Your task to perform on an android device: Go to Amazon Image 0: 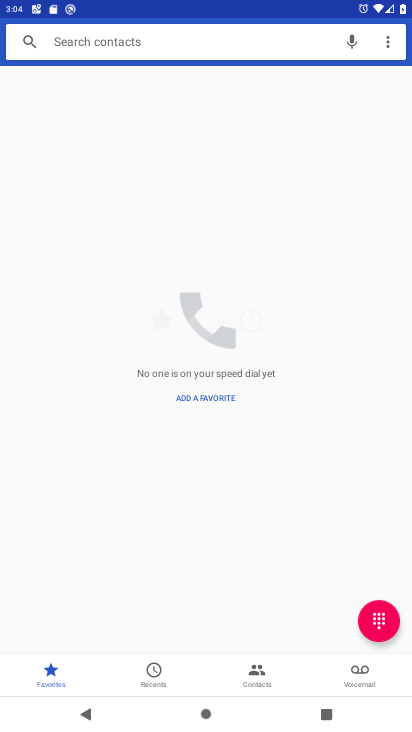
Step 0: press home button
Your task to perform on an android device: Go to Amazon Image 1: 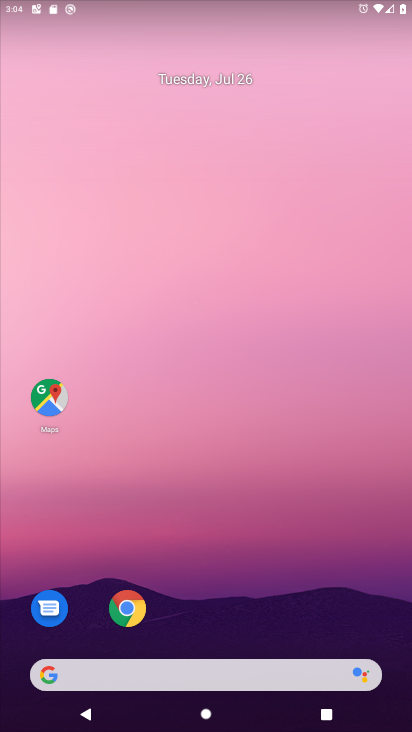
Step 1: click (123, 610)
Your task to perform on an android device: Go to Amazon Image 2: 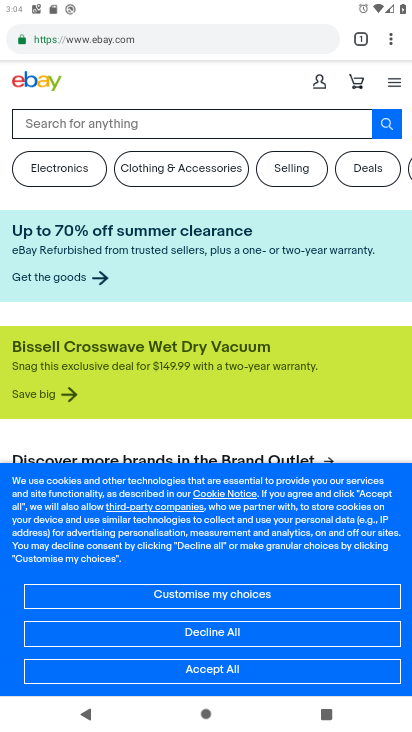
Step 2: click (145, 37)
Your task to perform on an android device: Go to Amazon Image 3: 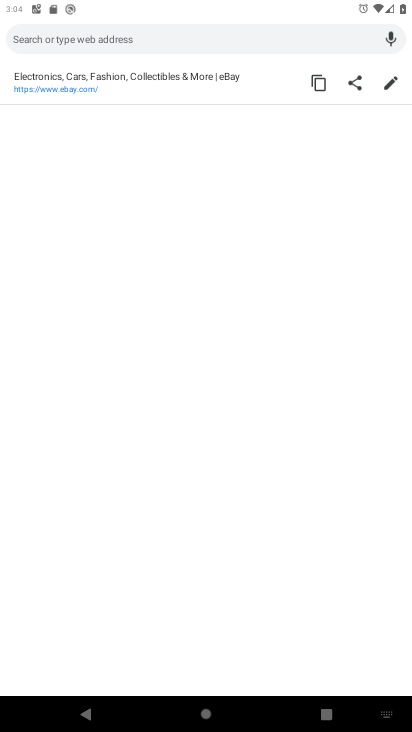
Step 3: type "amazon"
Your task to perform on an android device: Go to Amazon Image 4: 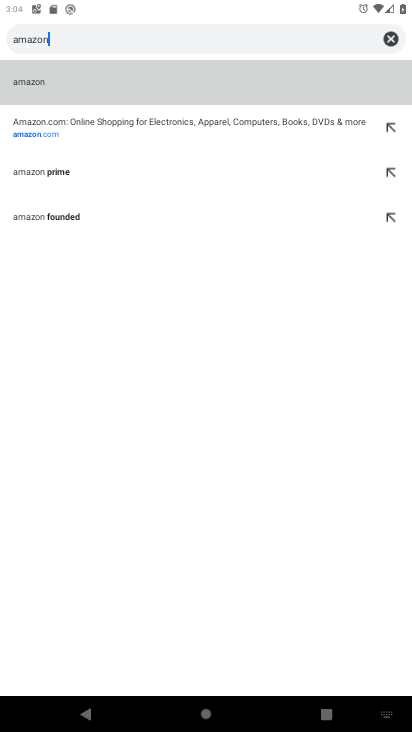
Step 4: click (302, 91)
Your task to perform on an android device: Go to Amazon Image 5: 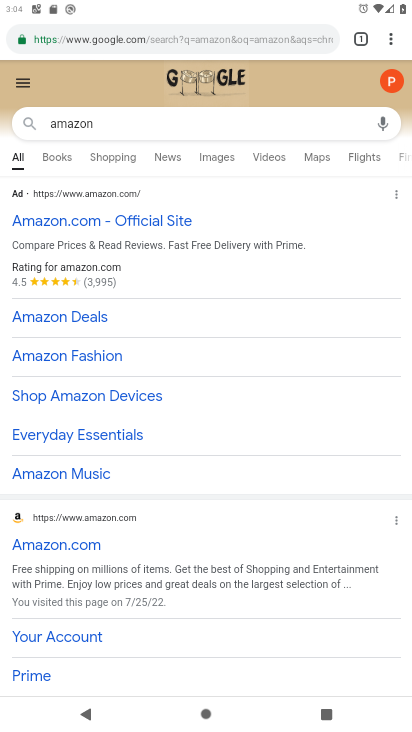
Step 5: click (155, 222)
Your task to perform on an android device: Go to Amazon Image 6: 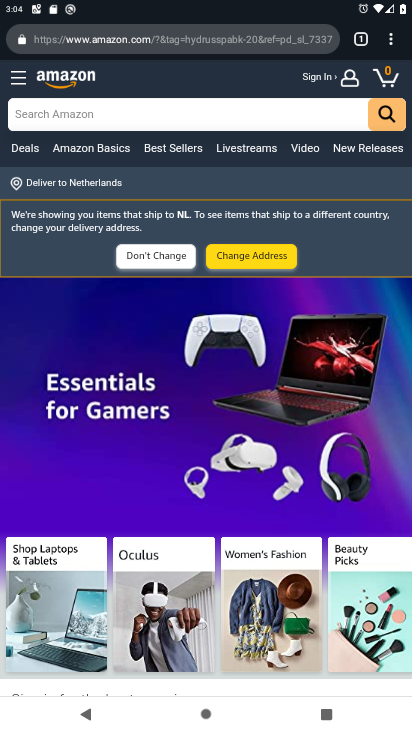
Step 6: task complete